Your task to perform on an android device: Clear all items from cart on ebay. Image 0: 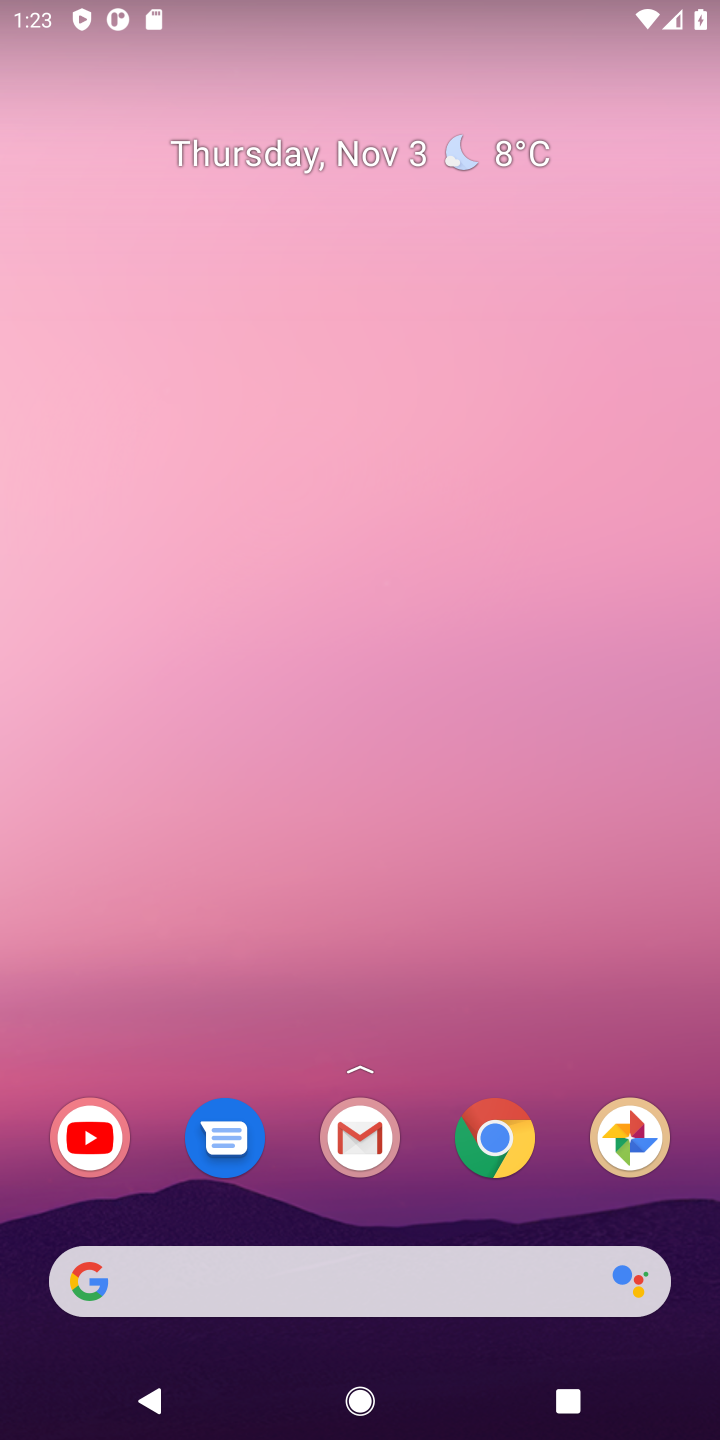
Step 0: click (517, 1153)
Your task to perform on an android device: Clear all items from cart on ebay. Image 1: 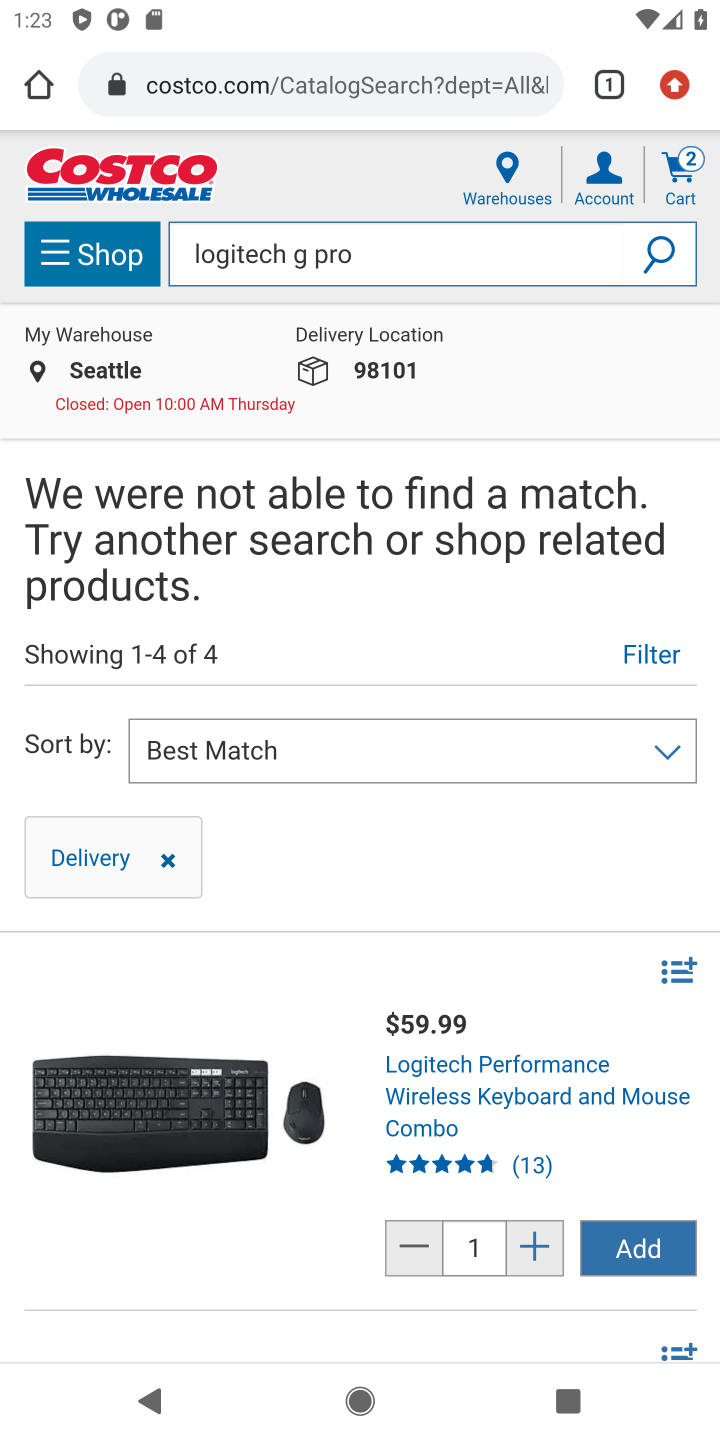
Step 1: click (402, 74)
Your task to perform on an android device: Clear all items from cart on ebay. Image 2: 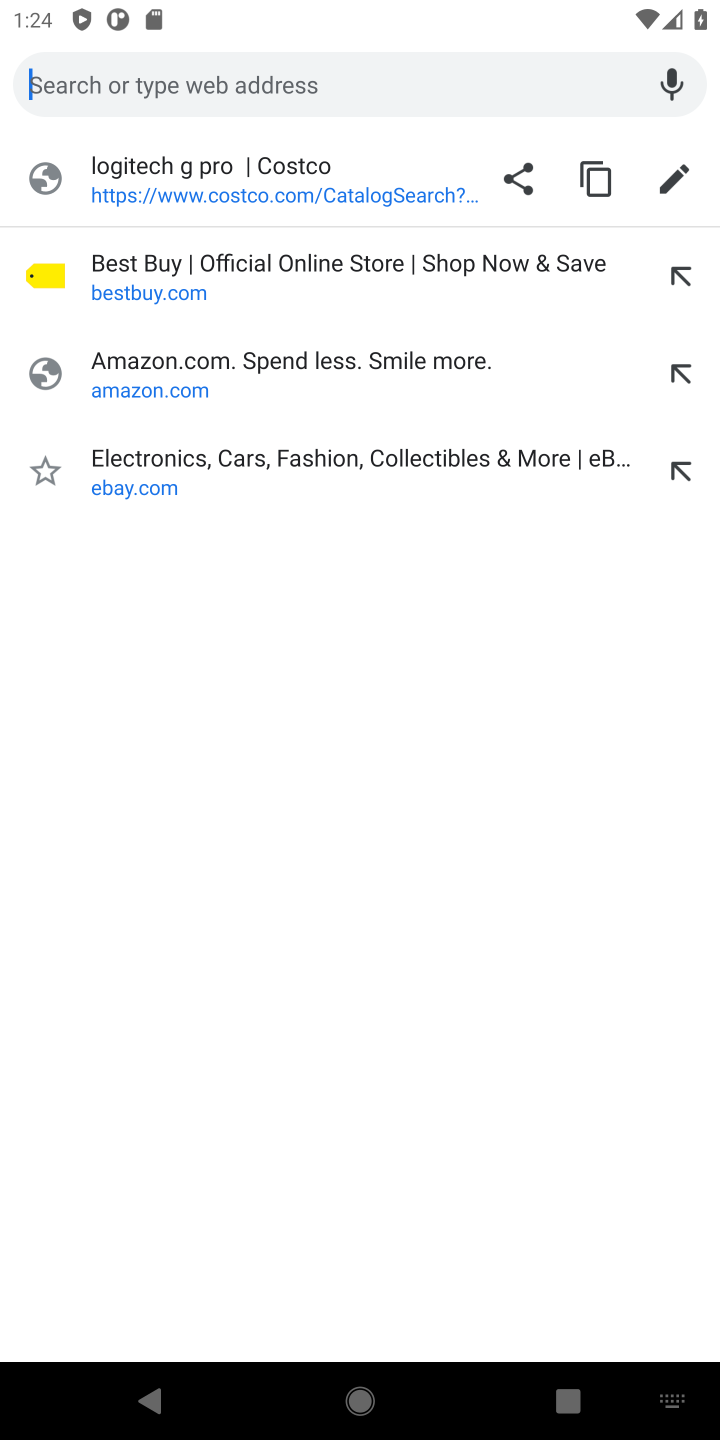
Step 2: type "ebay"
Your task to perform on an android device: Clear all items from cart on ebay. Image 3: 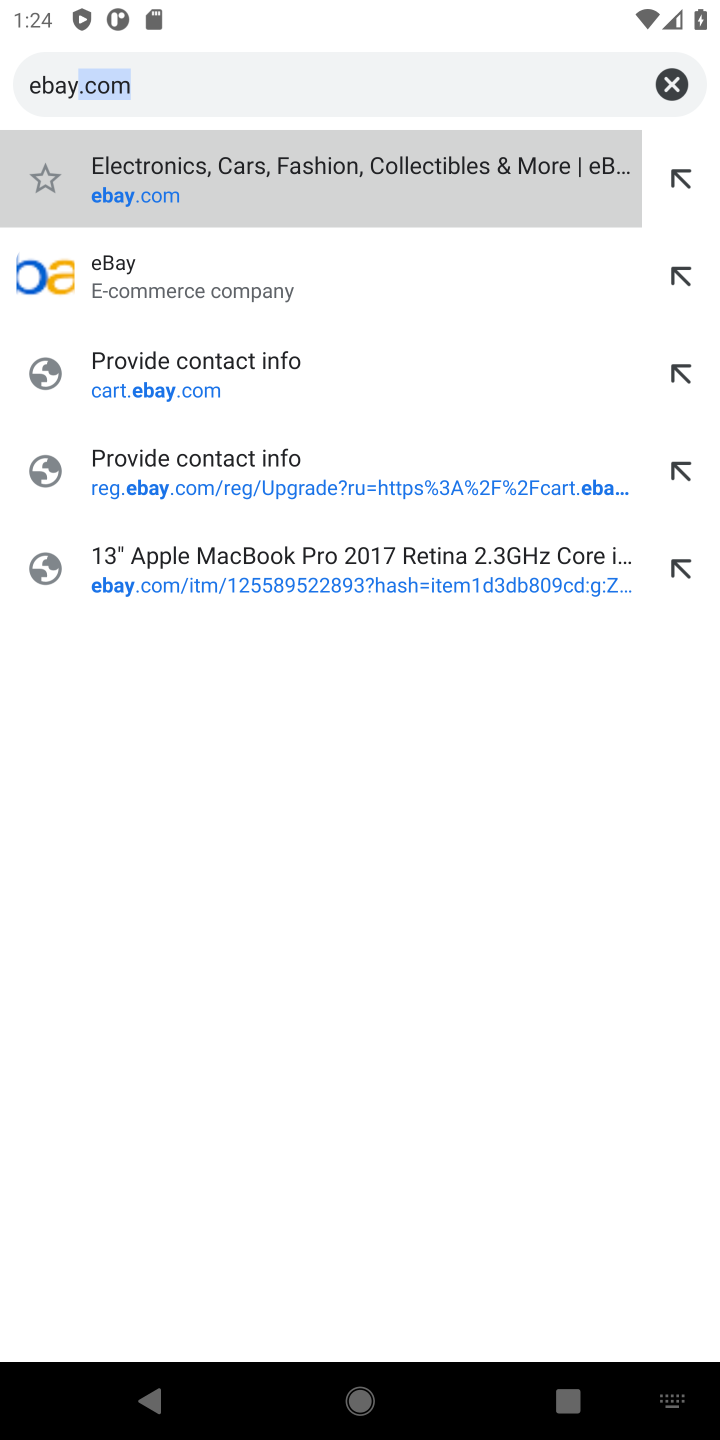
Step 3: click (169, 254)
Your task to perform on an android device: Clear all items from cart on ebay. Image 4: 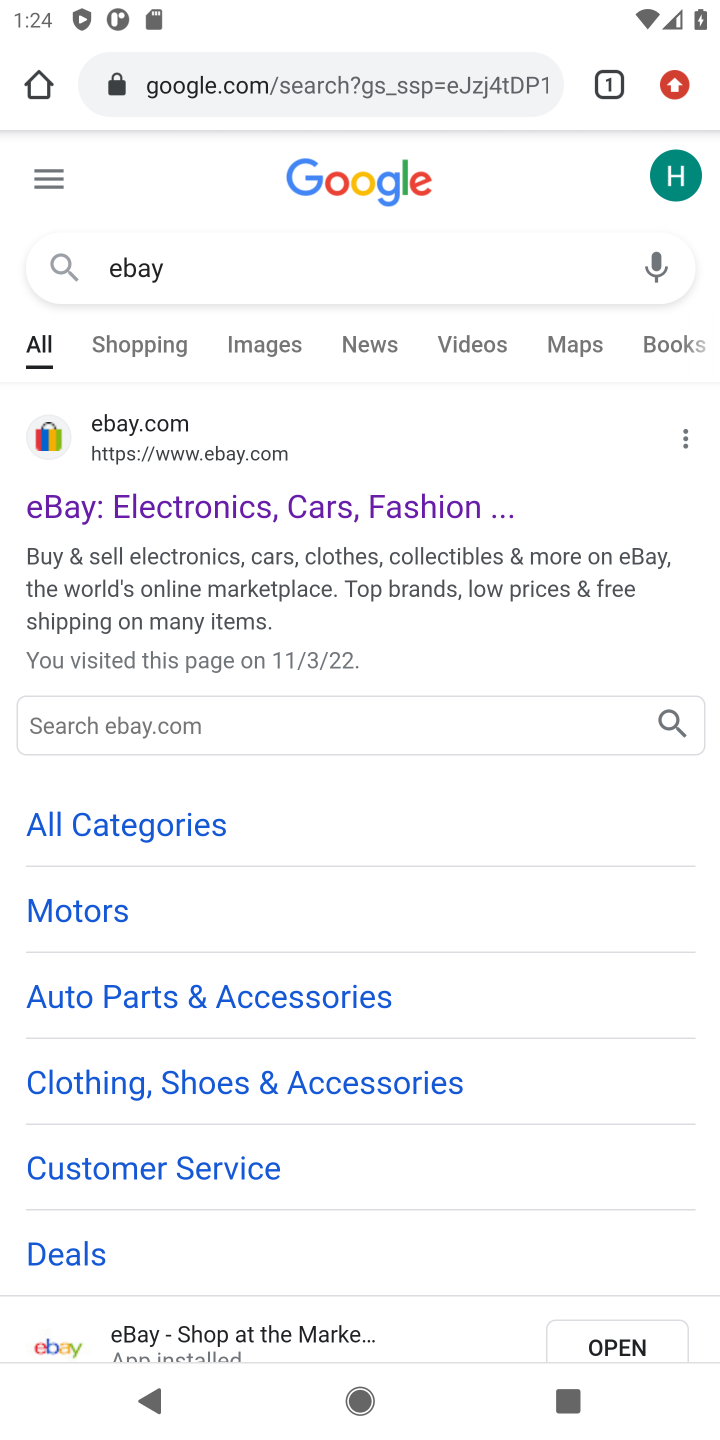
Step 4: click (331, 495)
Your task to perform on an android device: Clear all items from cart on ebay. Image 5: 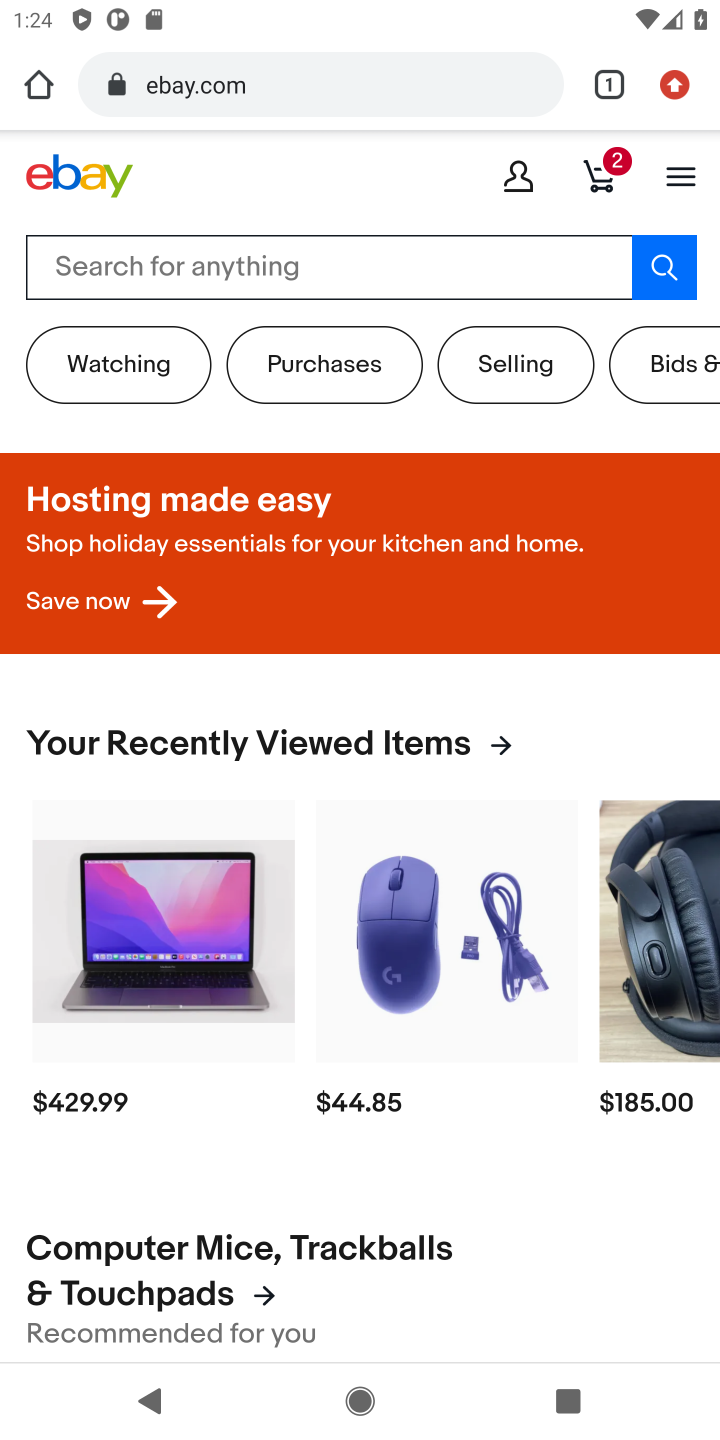
Step 5: click (609, 180)
Your task to perform on an android device: Clear all items from cart on ebay. Image 6: 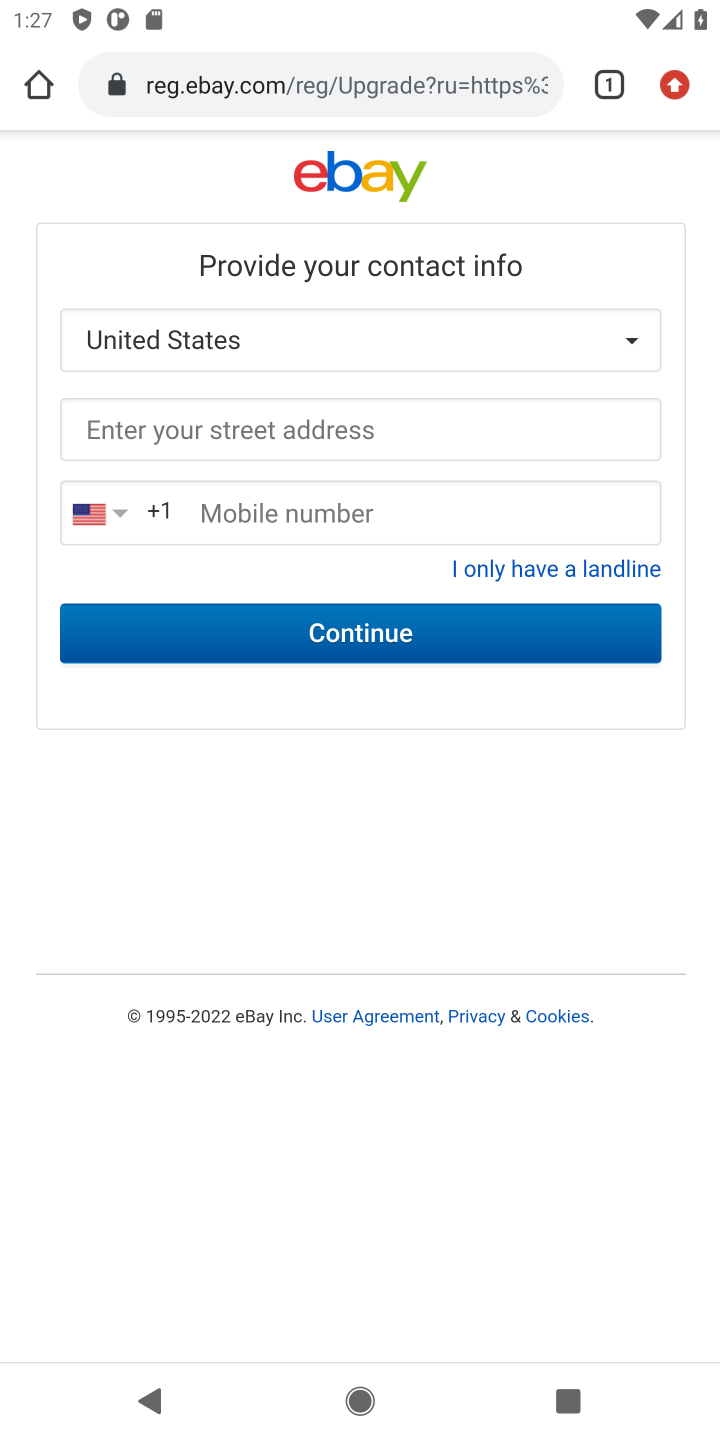
Step 6: task complete